Your task to perform on an android device: change notification settings in the gmail app Image 0: 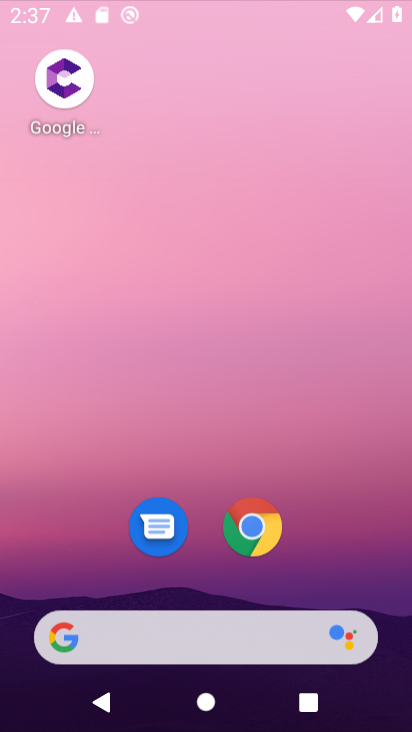
Step 0: drag from (303, 438) to (206, 73)
Your task to perform on an android device: change notification settings in the gmail app Image 1: 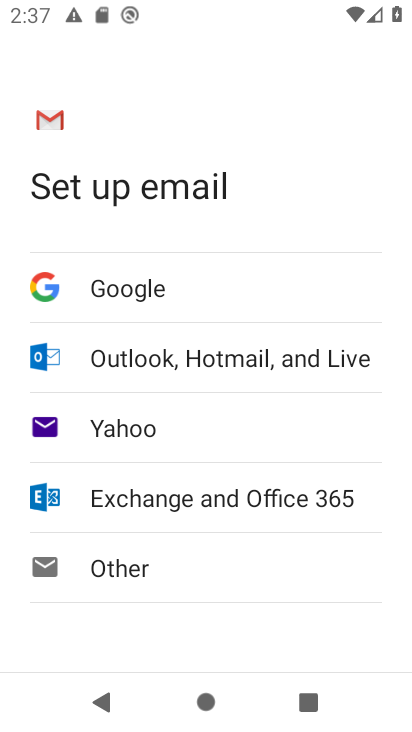
Step 1: press home button
Your task to perform on an android device: change notification settings in the gmail app Image 2: 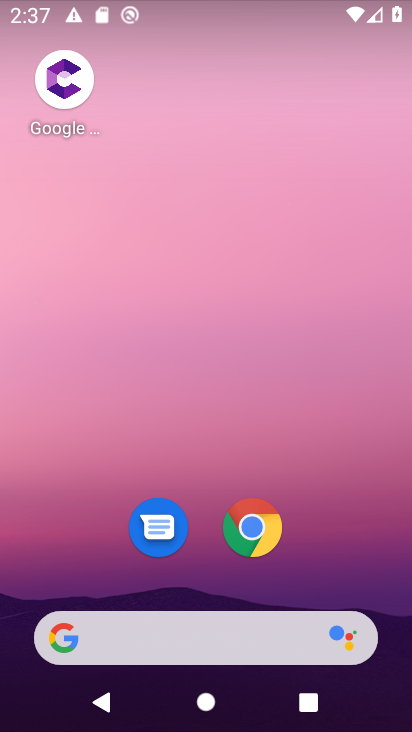
Step 2: drag from (311, 562) to (262, 82)
Your task to perform on an android device: change notification settings in the gmail app Image 3: 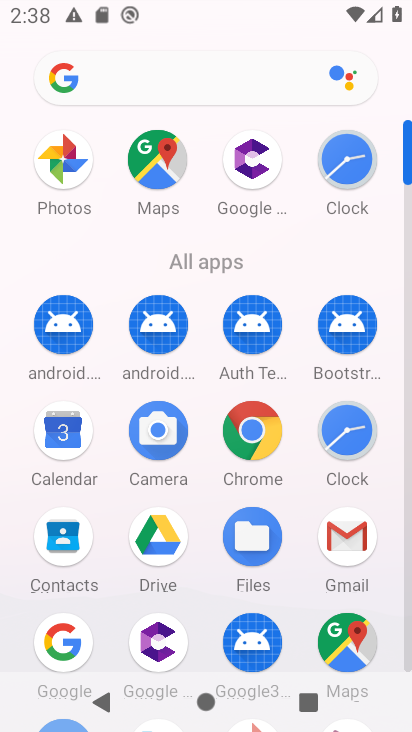
Step 3: click (339, 541)
Your task to perform on an android device: change notification settings in the gmail app Image 4: 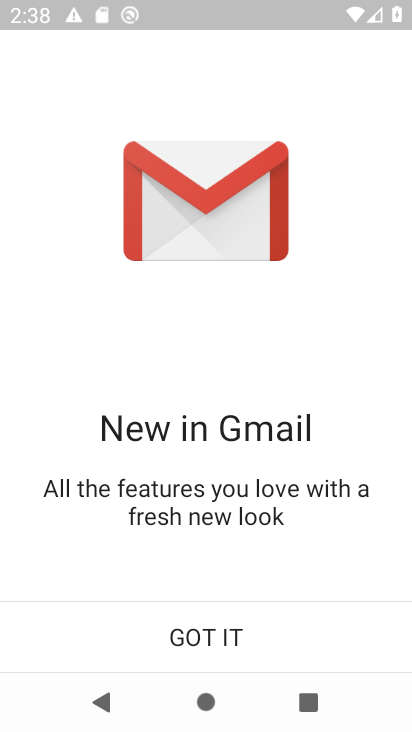
Step 4: click (191, 627)
Your task to perform on an android device: change notification settings in the gmail app Image 5: 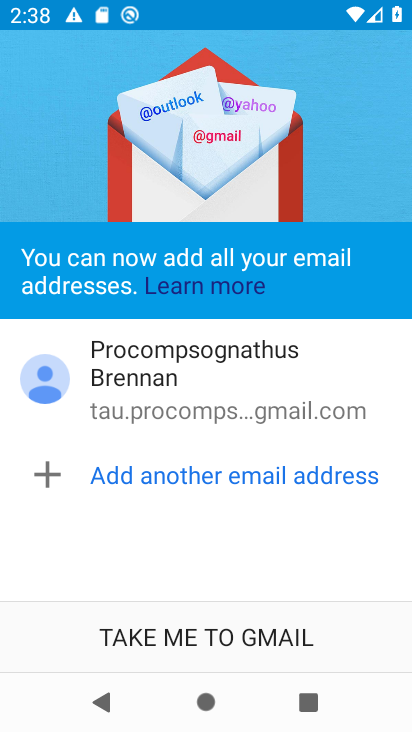
Step 5: click (213, 630)
Your task to perform on an android device: change notification settings in the gmail app Image 6: 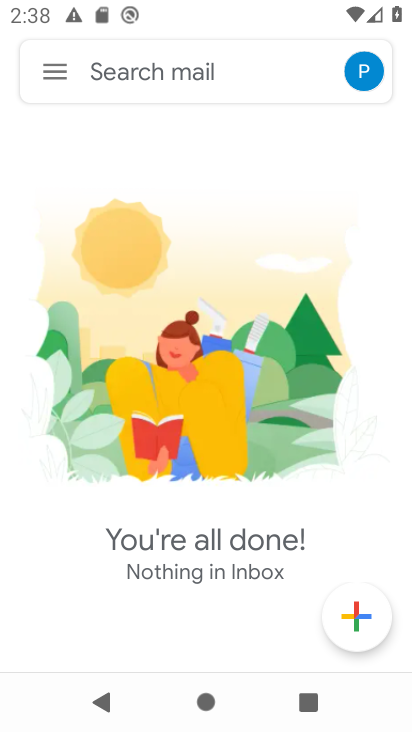
Step 6: click (54, 62)
Your task to perform on an android device: change notification settings in the gmail app Image 7: 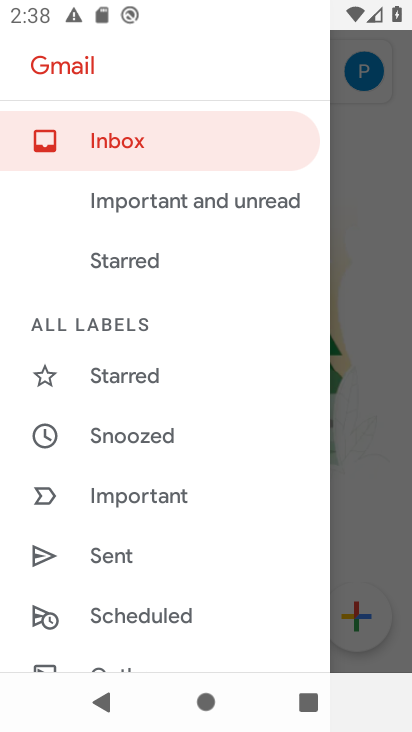
Step 7: drag from (152, 536) to (221, 278)
Your task to perform on an android device: change notification settings in the gmail app Image 8: 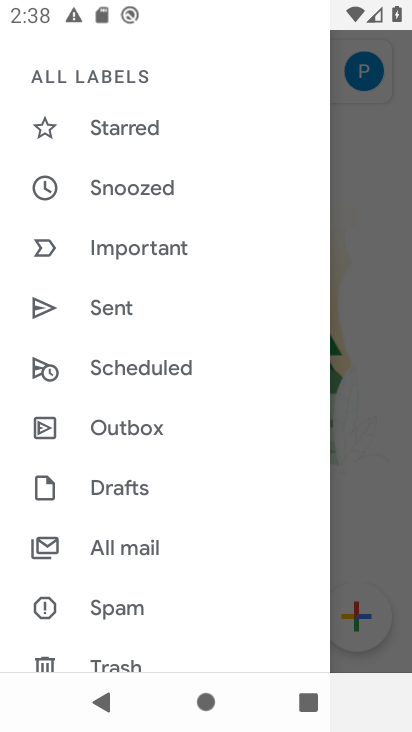
Step 8: drag from (187, 579) to (243, 255)
Your task to perform on an android device: change notification settings in the gmail app Image 9: 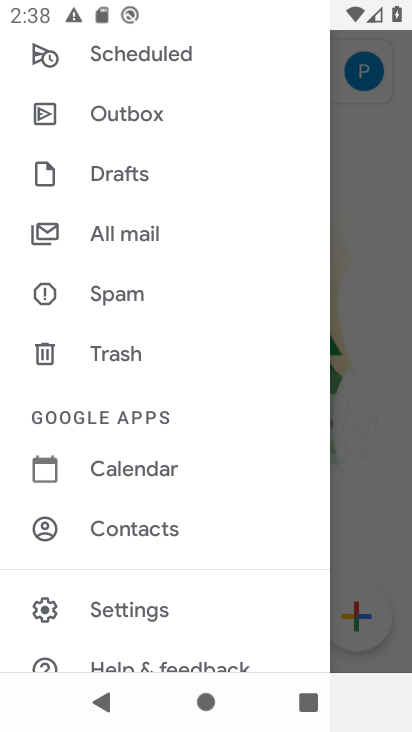
Step 9: click (153, 611)
Your task to perform on an android device: change notification settings in the gmail app Image 10: 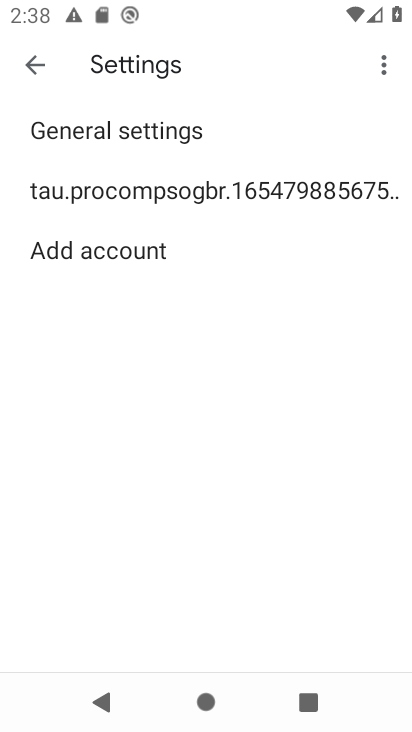
Step 10: click (214, 196)
Your task to perform on an android device: change notification settings in the gmail app Image 11: 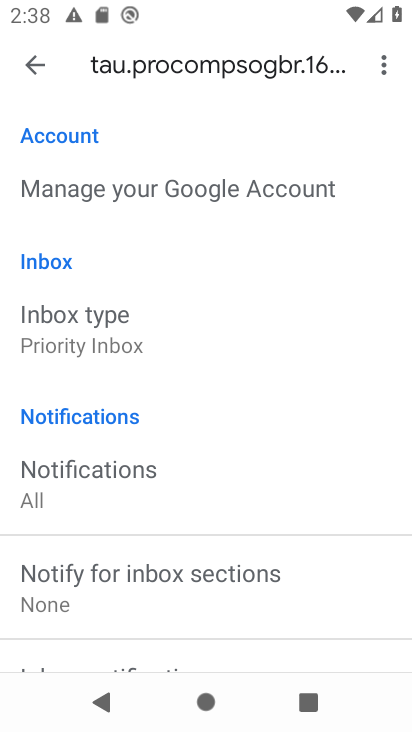
Step 11: drag from (258, 618) to (301, 308)
Your task to perform on an android device: change notification settings in the gmail app Image 12: 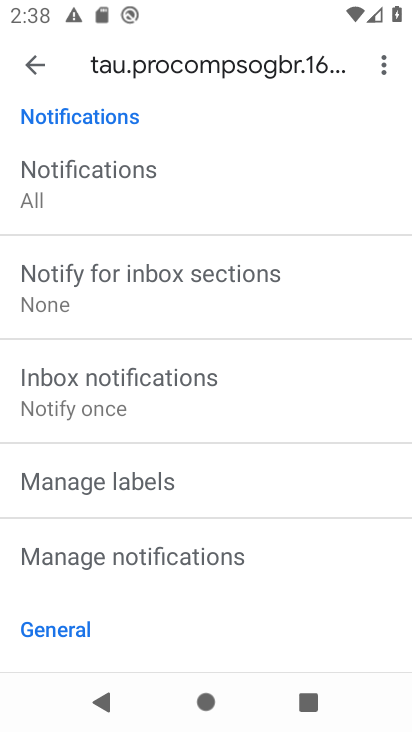
Step 12: click (164, 560)
Your task to perform on an android device: change notification settings in the gmail app Image 13: 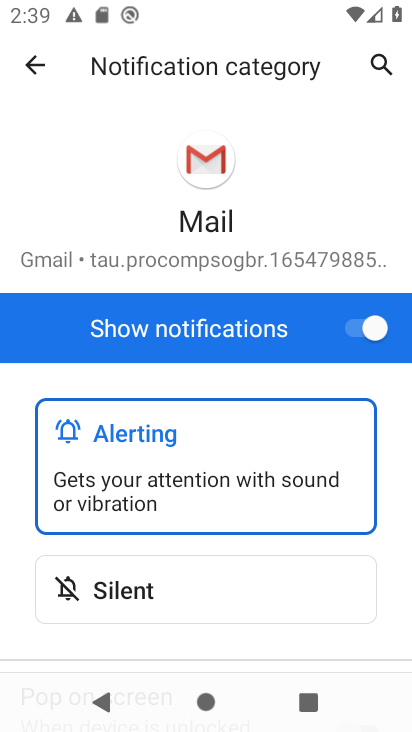
Step 13: click (347, 322)
Your task to perform on an android device: change notification settings in the gmail app Image 14: 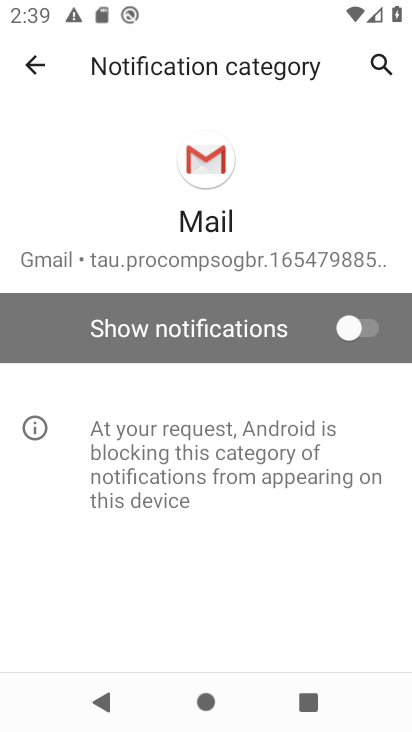
Step 14: task complete